Your task to perform on an android device: empty trash in google photos Image 0: 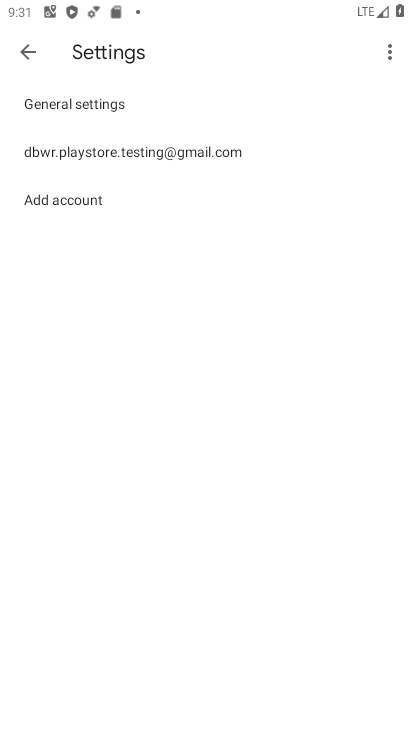
Step 0: press home button
Your task to perform on an android device: empty trash in google photos Image 1: 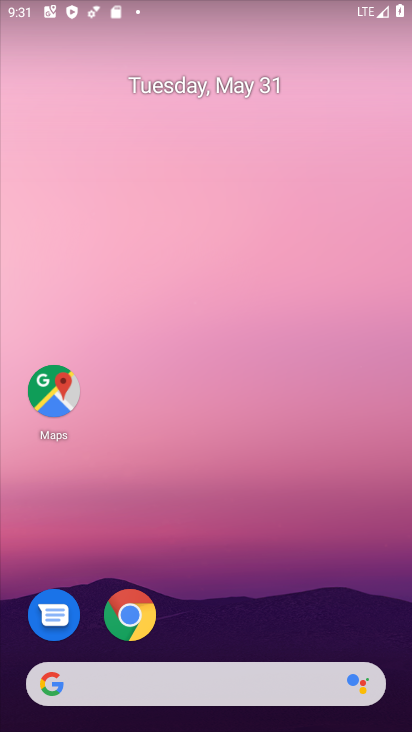
Step 1: drag from (317, 586) to (338, 121)
Your task to perform on an android device: empty trash in google photos Image 2: 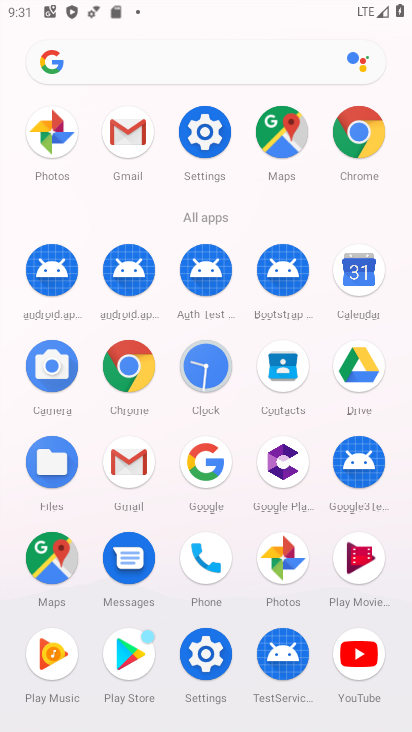
Step 2: click (281, 562)
Your task to perform on an android device: empty trash in google photos Image 3: 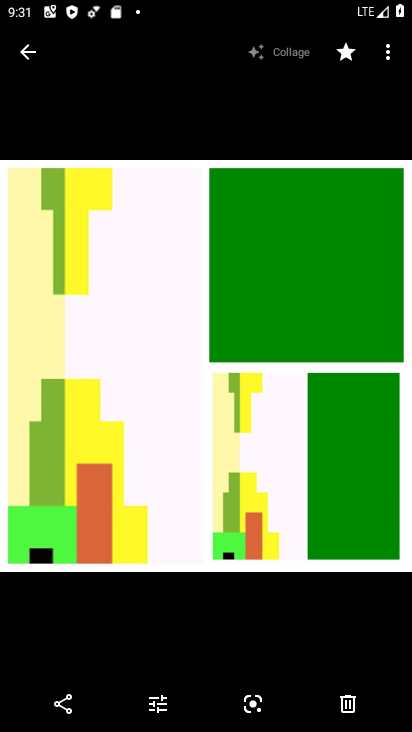
Step 3: click (32, 51)
Your task to perform on an android device: empty trash in google photos Image 4: 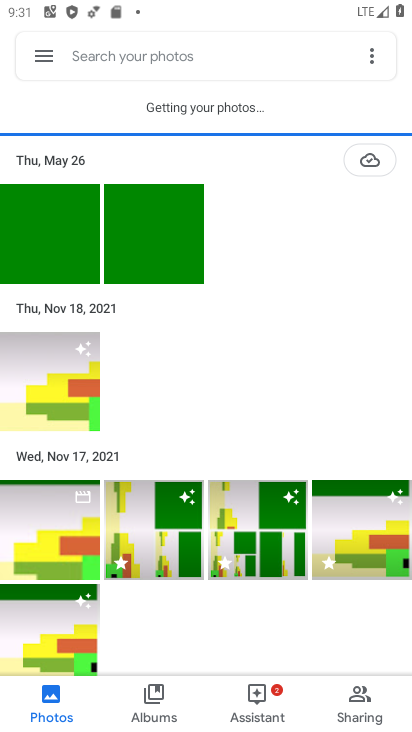
Step 4: click (32, 50)
Your task to perform on an android device: empty trash in google photos Image 5: 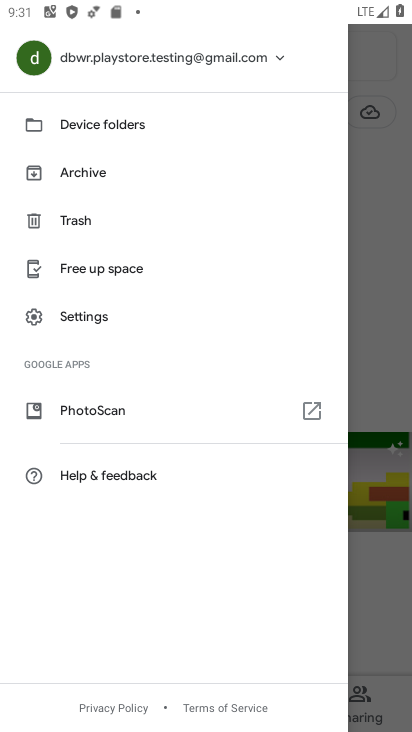
Step 5: click (67, 218)
Your task to perform on an android device: empty trash in google photos Image 6: 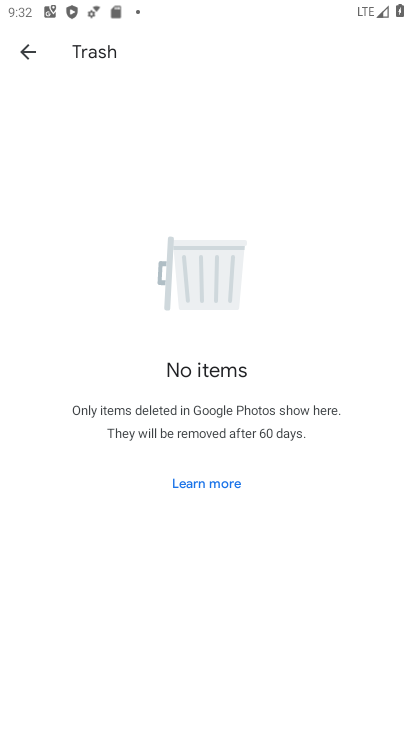
Step 6: task complete